Your task to perform on an android device: Open ESPN.com Image 0: 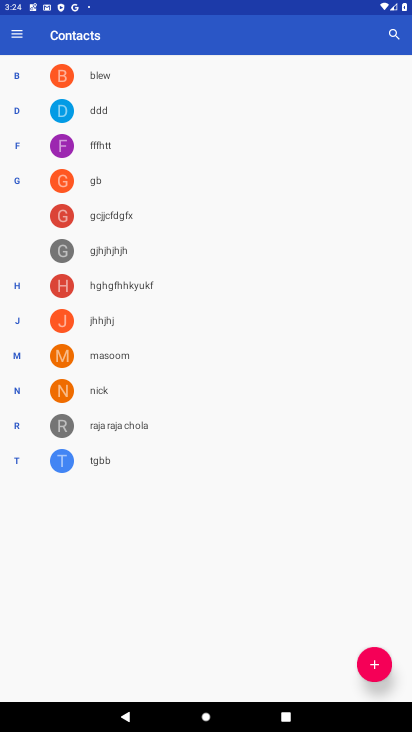
Step 0: press home button
Your task to perform on an android device: Open ESPN.com Image 1: 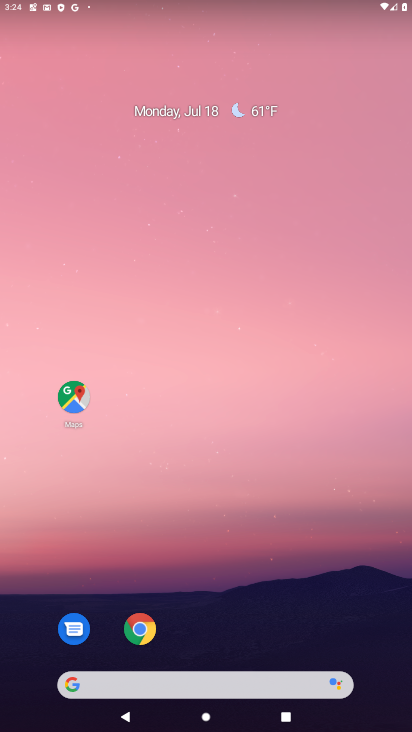
Step 1: click (143, 641)
Your task to perform on an android device: Open ESPN.com Image 2: 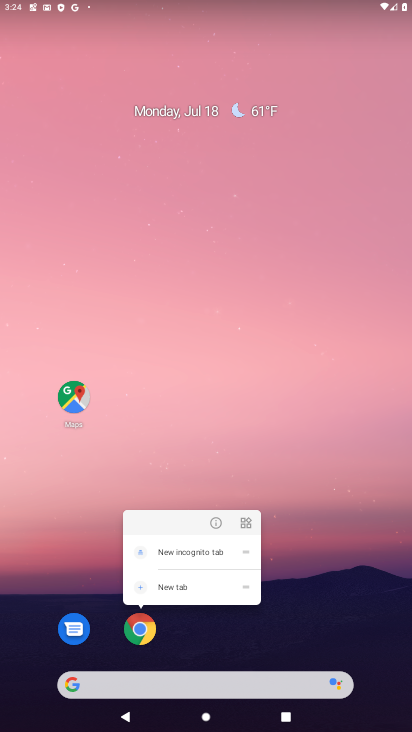
Step 2: click (138, 635)
Your task to perform on an android device: Open ESPN.com Image 3: 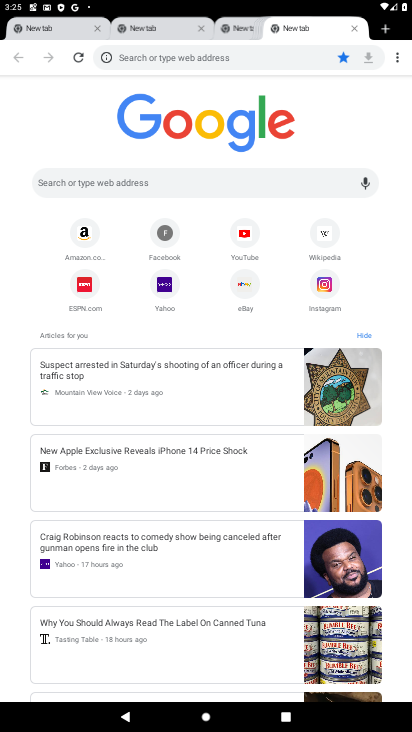
Step 3: click (84, 279)
Your task to perform on an android device: Open ESPN.com Image 4: 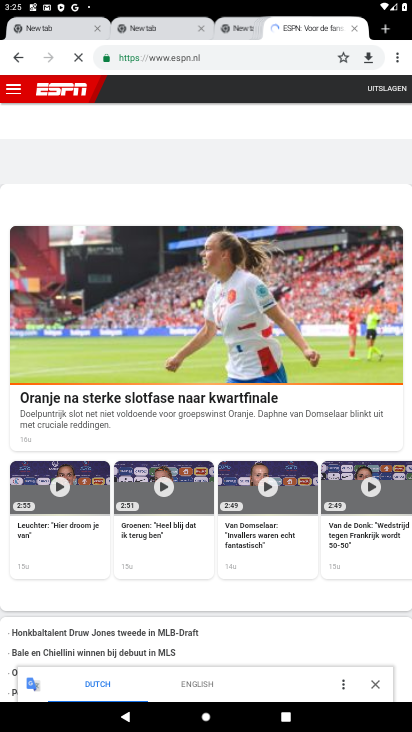
Step 4: task complete